Your task to perform on an android device: all mails in gmail Image 0: 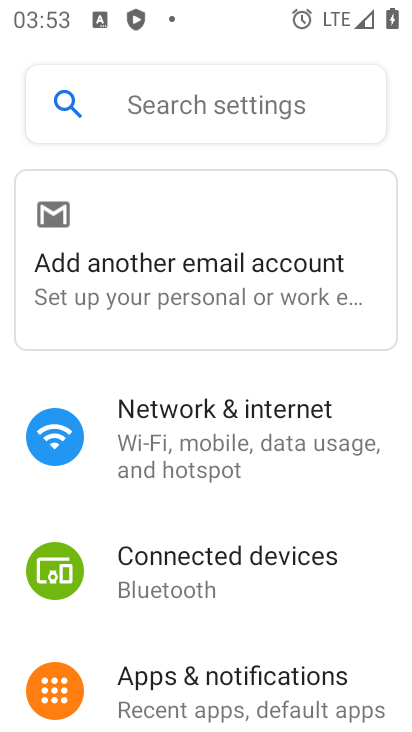
Step 0: press home button
Your task to perform on an android device: all mails in gmail Image 1: 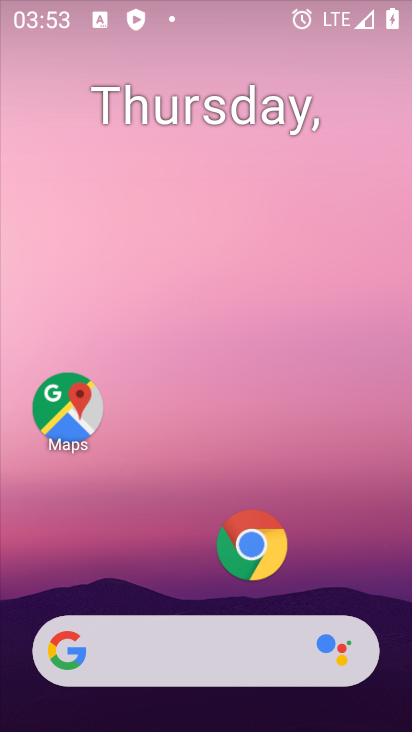
Step 1: drag from (334, 622) to (337, 119)
Your task to perform on an android device: all mails in gmail Image 2: 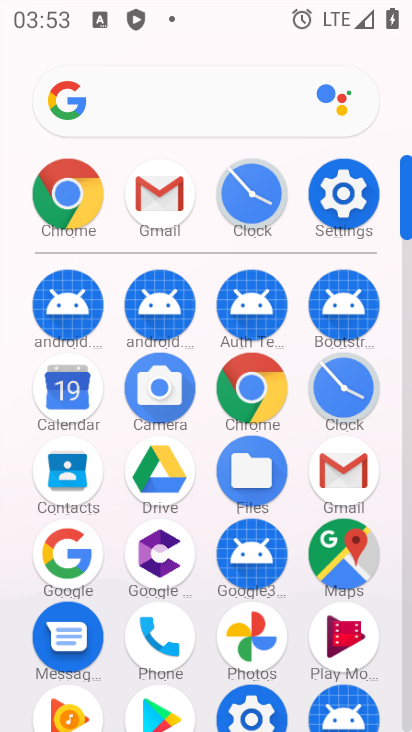
Step 2: click (342, 471)
Your task to perform on an android device: all mails in gmail Image 3: 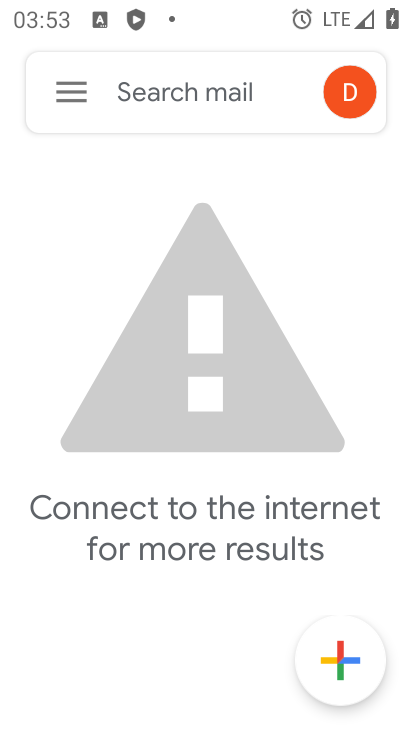
Step 3: click (69, 85)
Your task to perform on an android device: all mails in gmail Image 4: 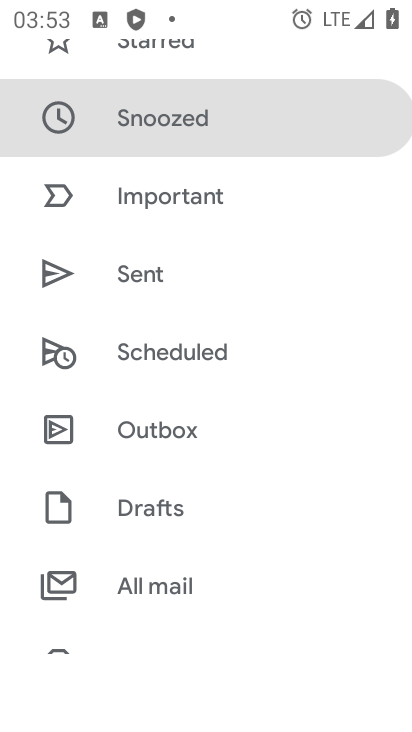
Step 4: click (160, 582)
Your task to perform on an android device: all mails in gmail Image 5: 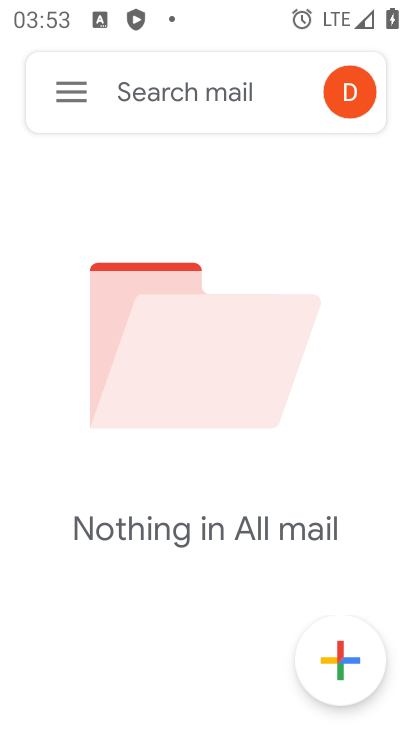
Step 5: task complete